Your task to perform on an android device: Go to CNN.com Image 0: 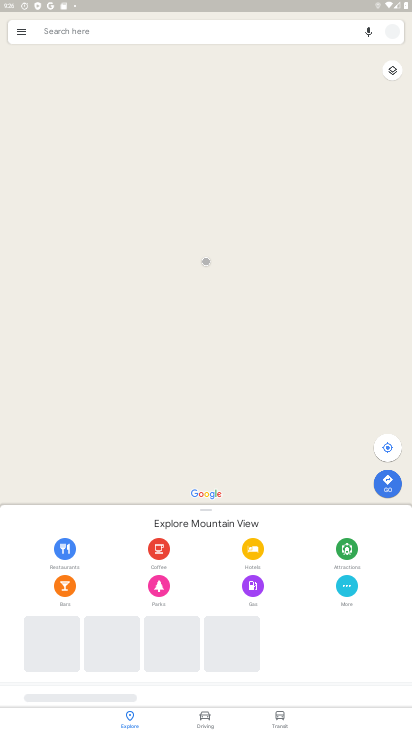
Step 0: press home button
Your task to perform on an android device: Go to CNN.com Image 1: 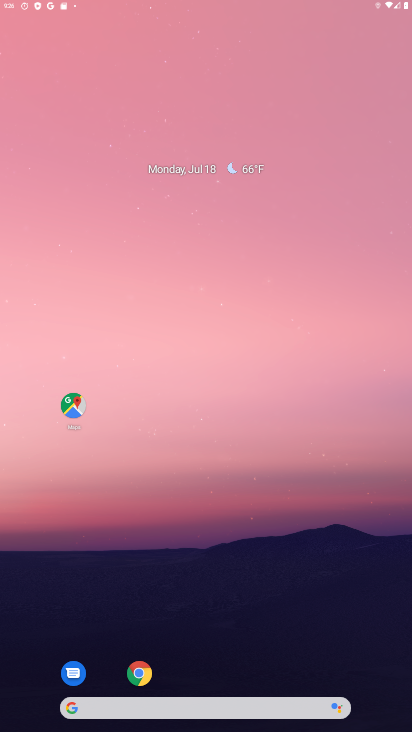
Step 1: drag from (205, 498) to (214, 105)
Your task to perform on an android device: Go to CNN.com Image 2: 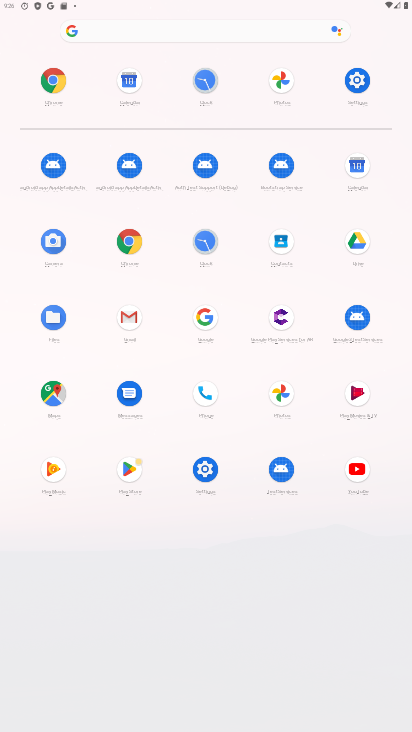
Step 2: click (209, 319)
Your task to perform on an android device: Go to CNN.com Image 3: 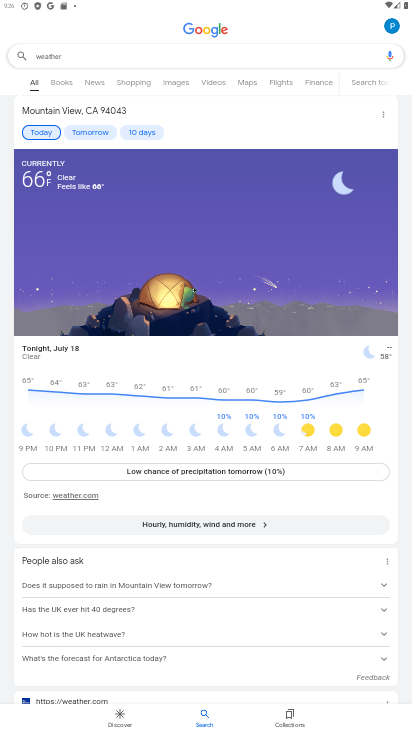
Step 3: click (181, 56)
Your task to perform on an android device: Go to CNN.com Image 4: 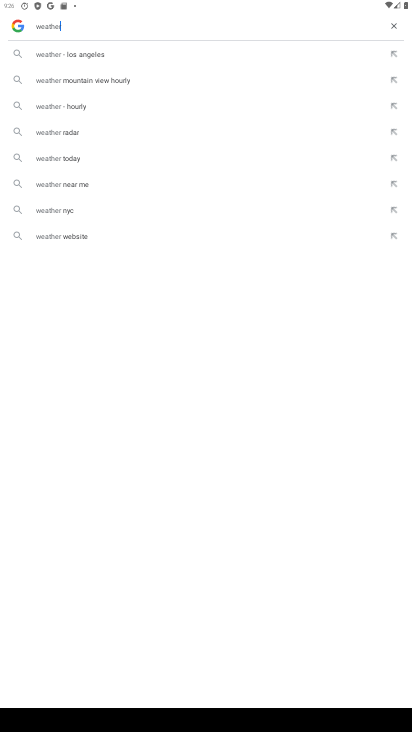
Step 4: click (394, 23)
Your task to perform on an android device: Go to CNN.com Image 5: 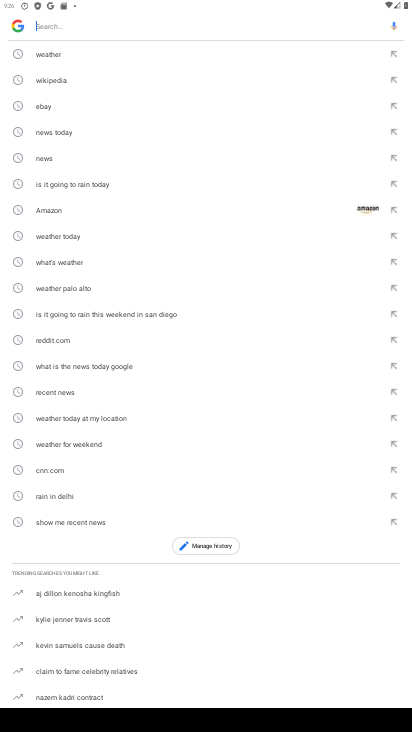
Step 5: click (61, 472)
Your task to perform on an android device: Go to CNN.com Image 6: 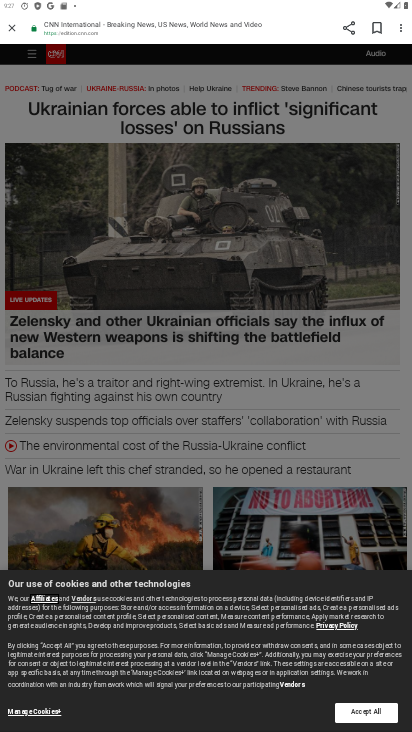
Step 6: task complete